Your task to perform on an android device: See recent photos Image 0: 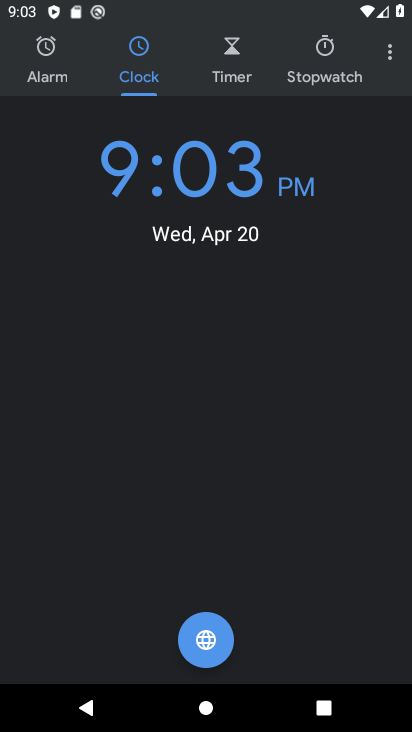
Step 0: press home button
Your task to perform on an android device: See recent photos Image 1: 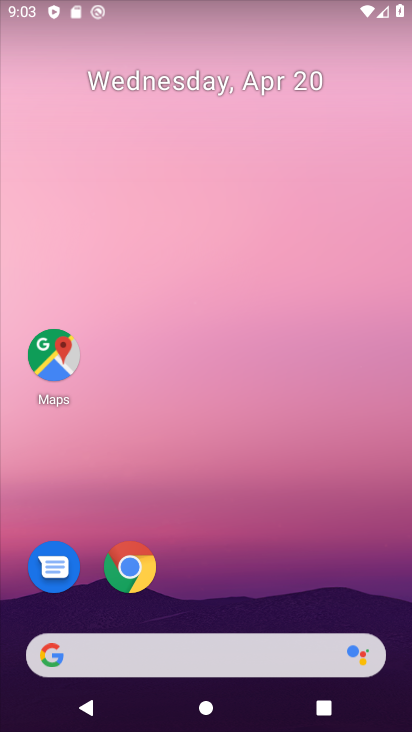
Step 1: drag from (332, 583) to (353, 159)
Your task to perform on an android device: See recent photos Image 2: 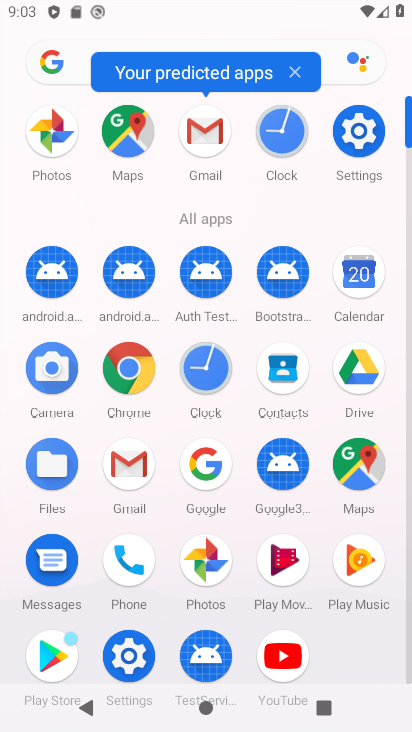
Step 2: click (201, 559)
Your task to perform on an android device: See recent photos Image 3: 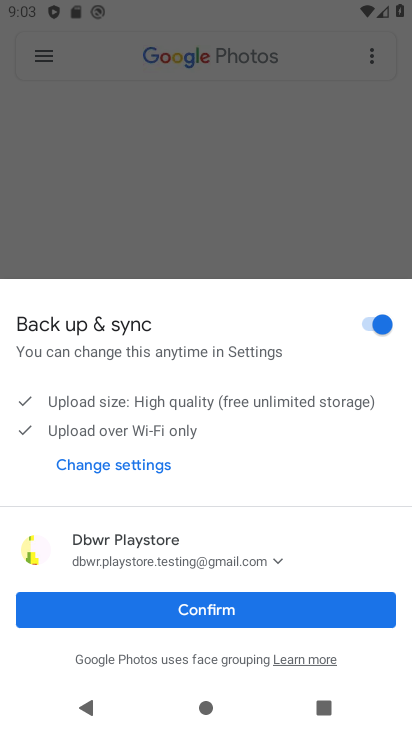
Step 3: click (300, 601)
Your task to perform on an android device: See recent photos Image 4: 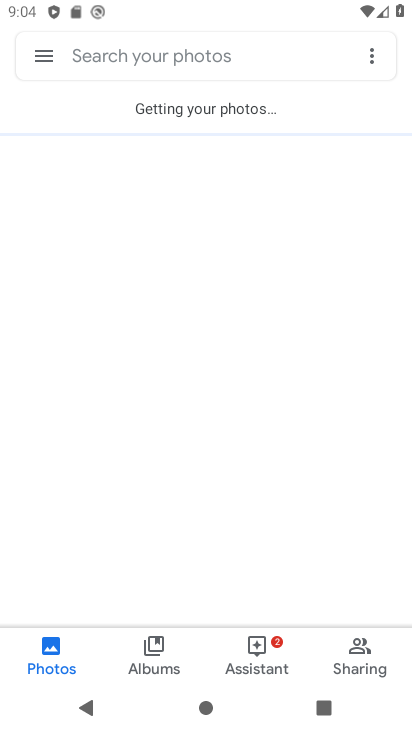
Step 4: task complete